Your task to perform on an android device: turn off improve location accuracy Image 0: 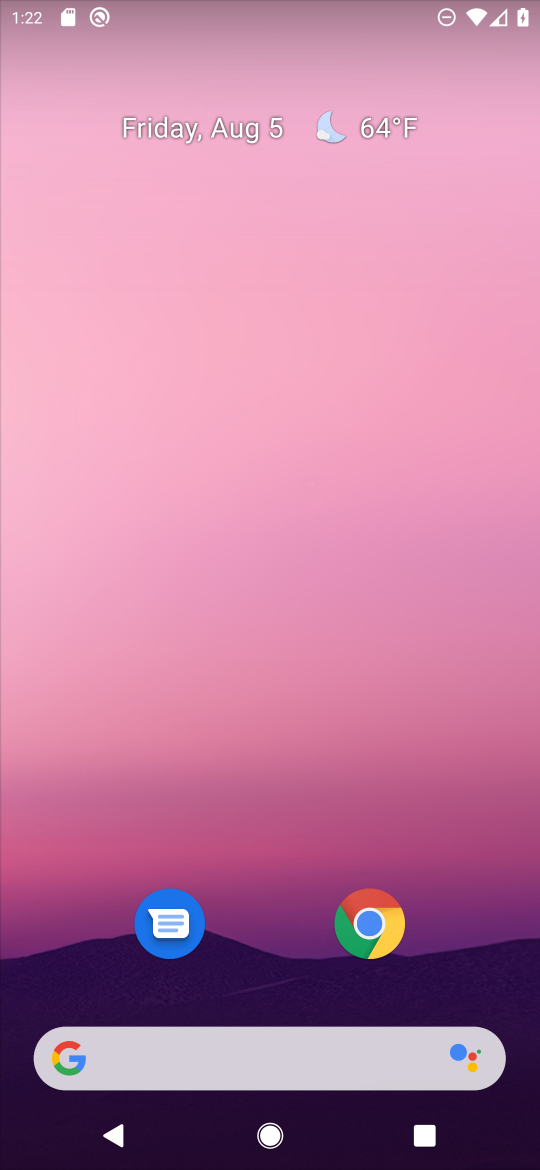
Step 0: drag from (230, 1006) to (189, 120)
Your task to perform on an android device: turn off improve location accuracy Image 1: 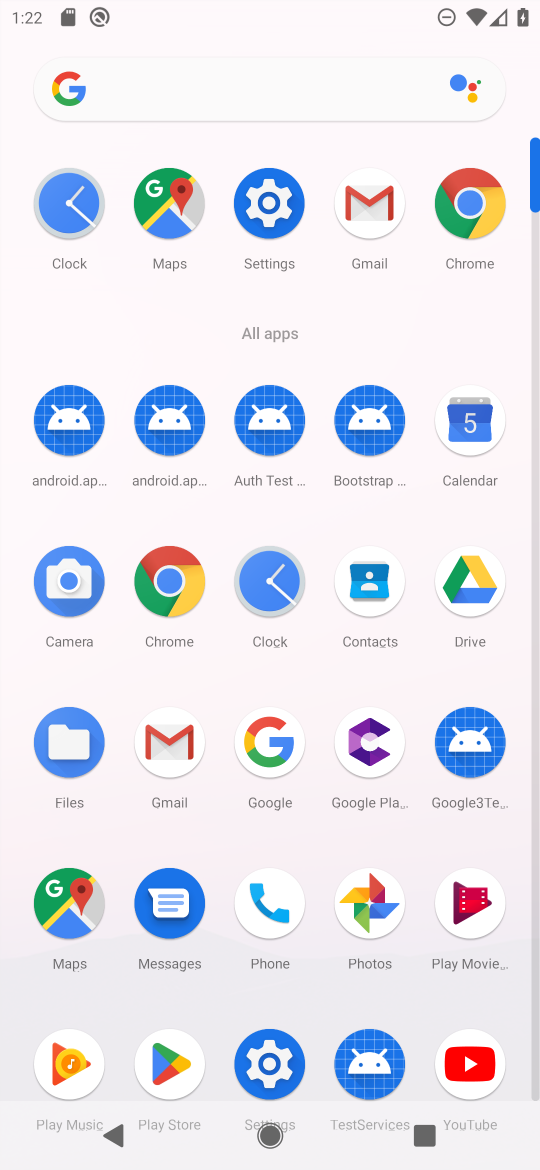
Step 1: click (244, 209)
Your task to perform on an android device: turn off improve location accuracy Image 2: 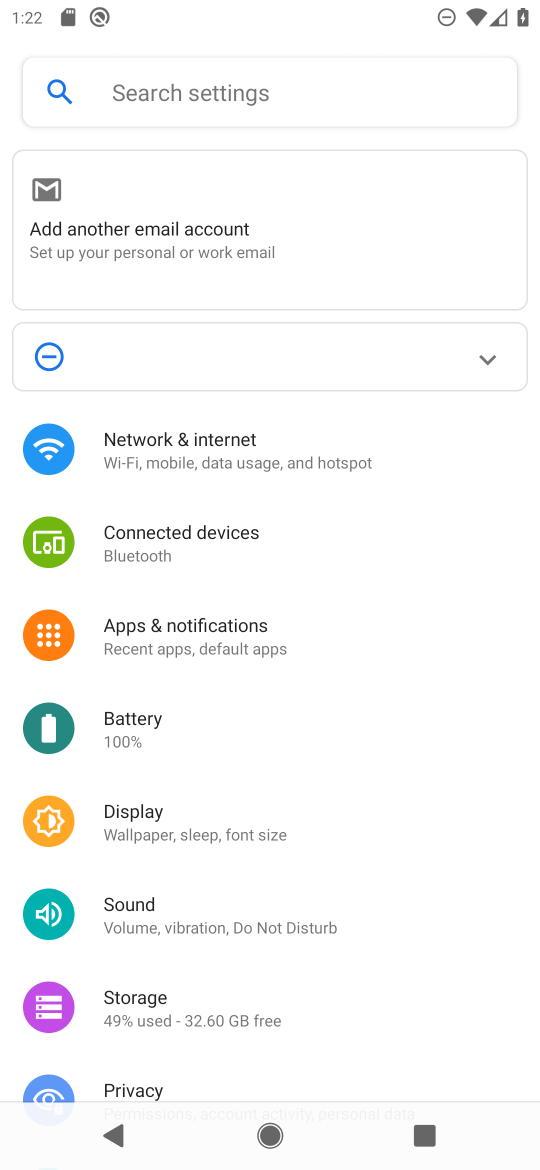
Step 2: drag from (195, 1020) to (151, 282)
Your task to perform on an android device: turn off improve location accuracy Image 3: 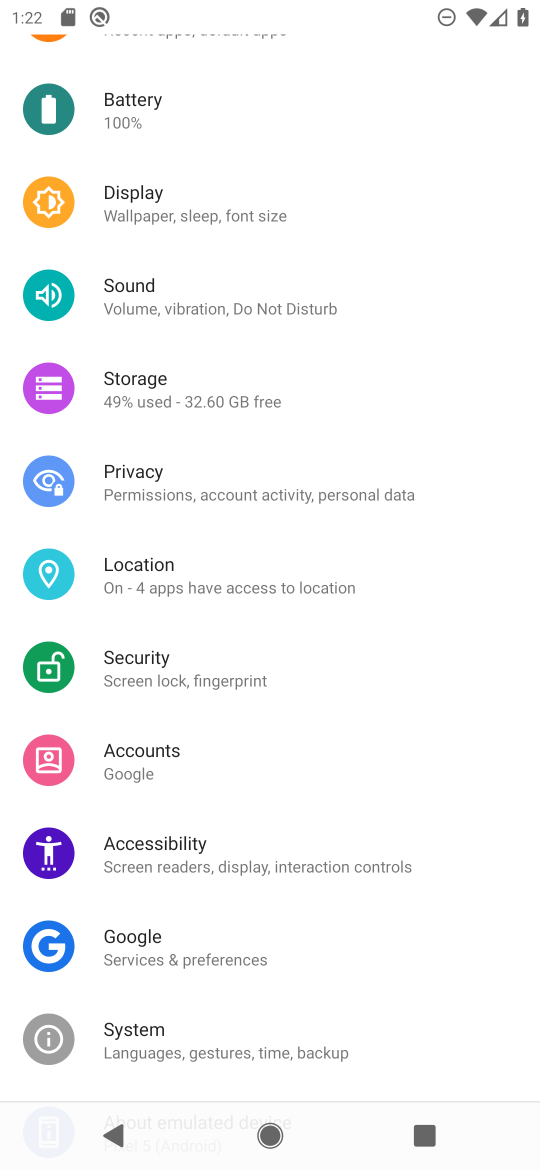
Step 3: click (82, 581)
Your task to perform on an android device: turn off improve location accuracy Image 4: 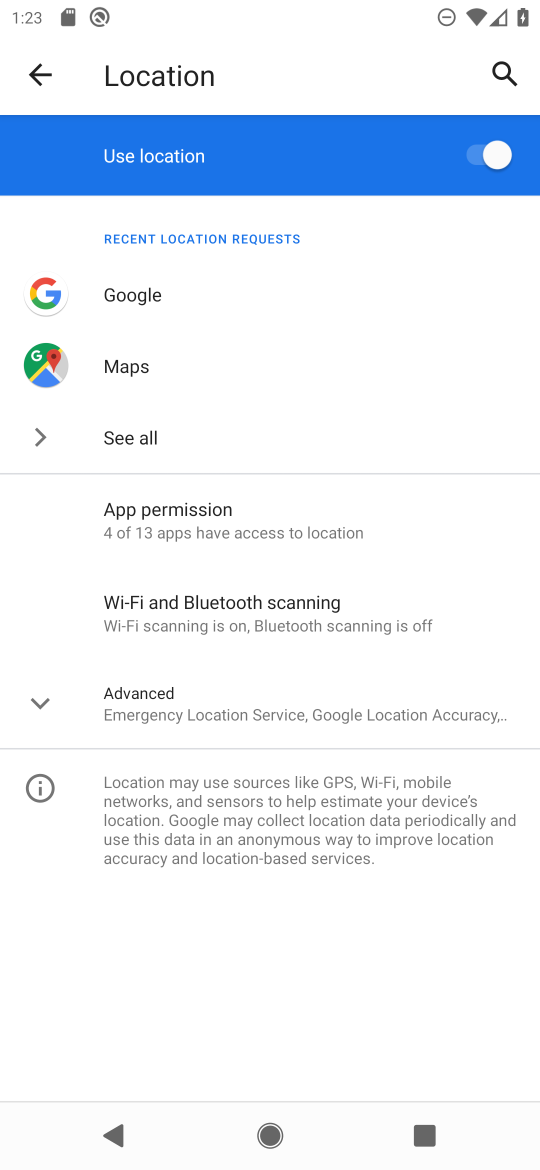
Step 4: click (235, 687)
Your task to perform on an android device: turn off improve location accuracy Image 5: 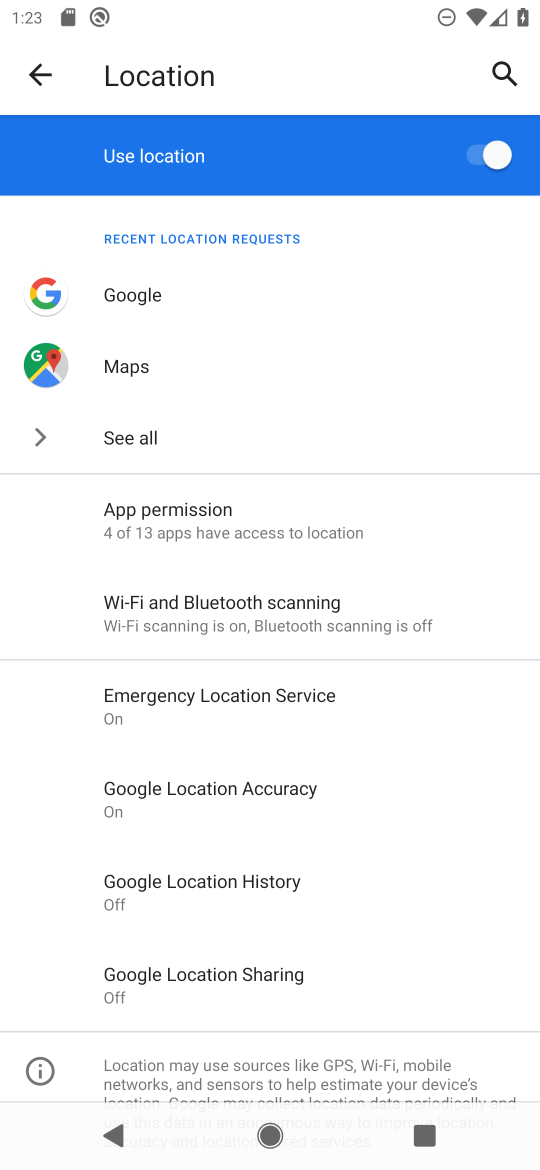
Step 5: click (278, 800)
Your task to perform on an android device: turn off improve location accuracy Image 6: 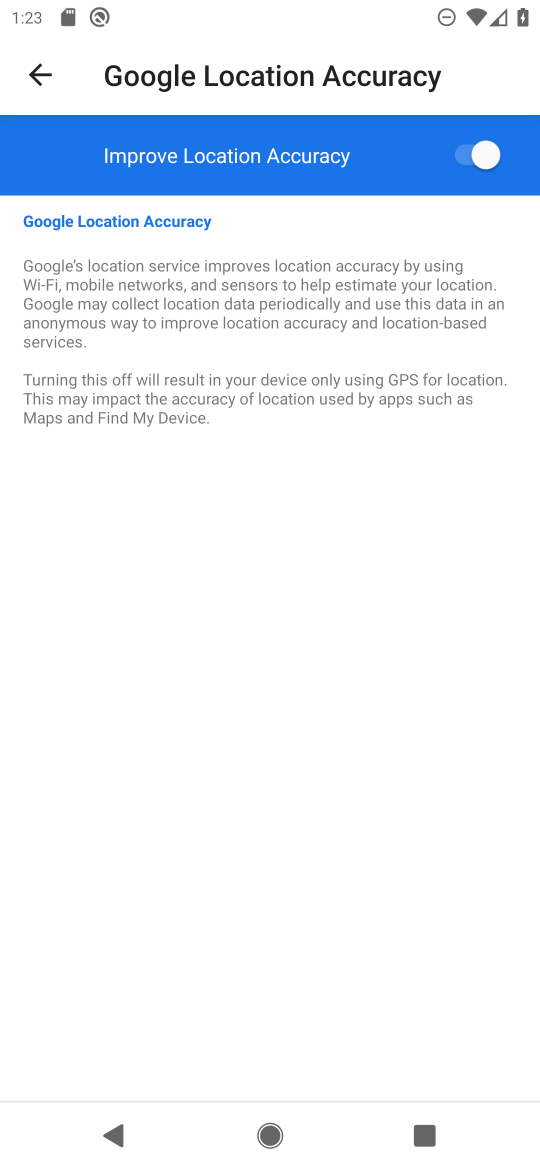
Step 6: click (457, 166)
Your task to perform on an android device: turn off improve location accuracy Image 7: 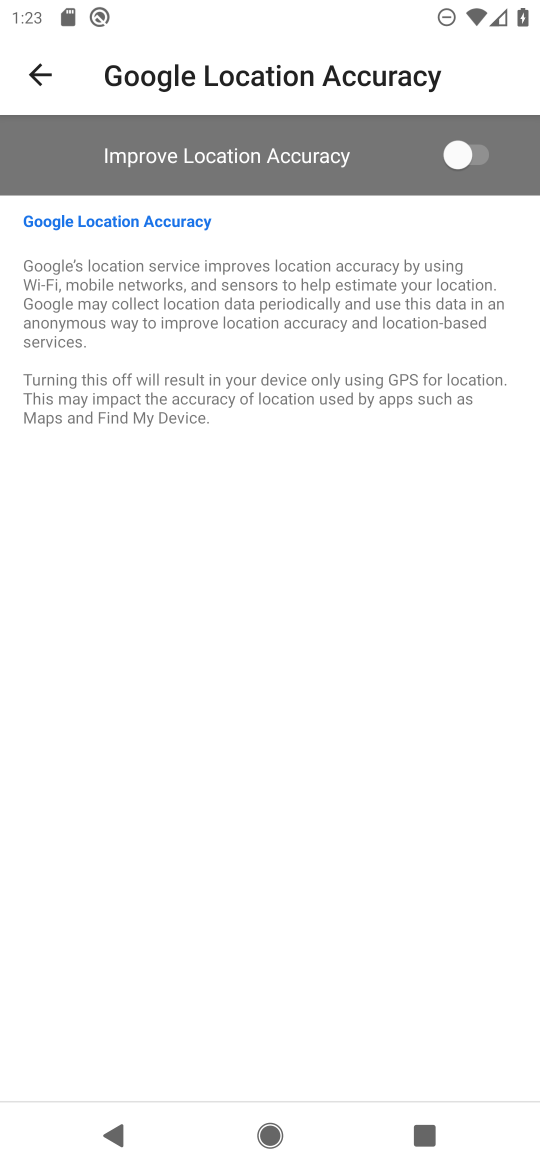
Step 7: task complete